Your task to perform on an android device: Open the web browser Image 0: 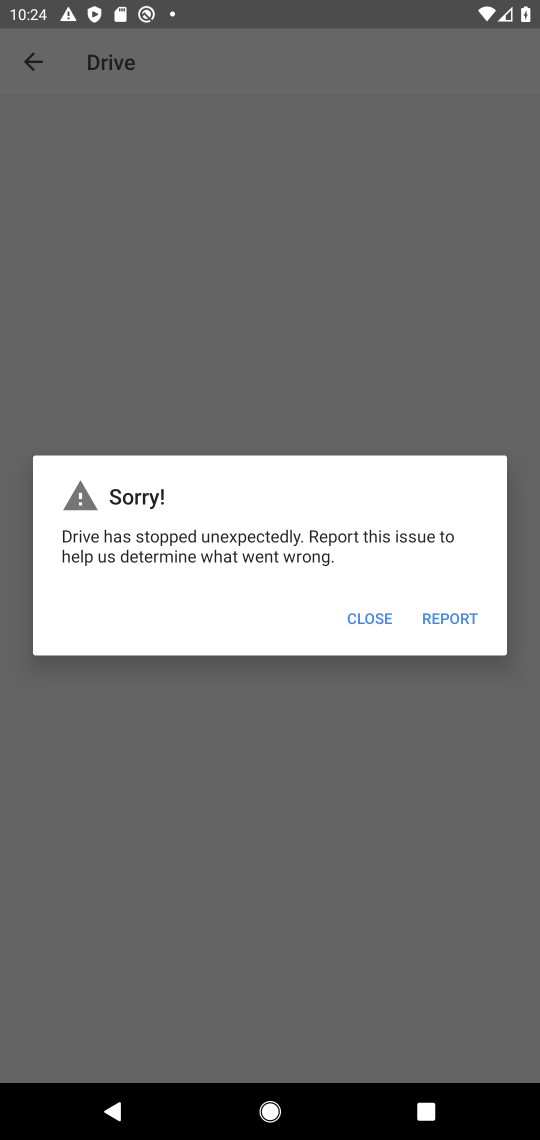
Step 0: press home button
Your task to perform on an android device: Open the web browser Image 1: 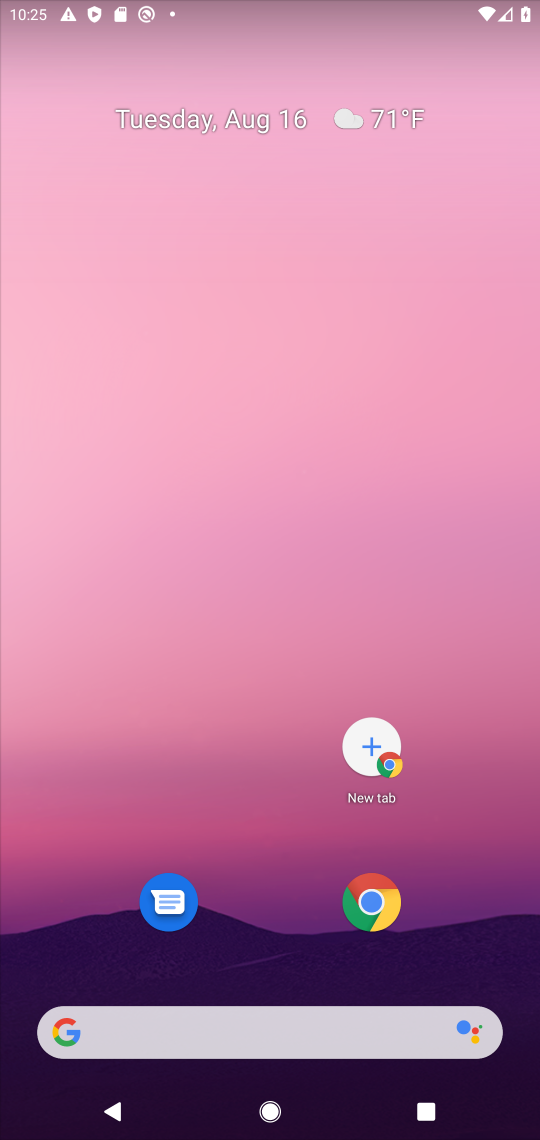
Step 1: click (358, 904)
Your task to perform on an android device: Open the web browser Image 2: 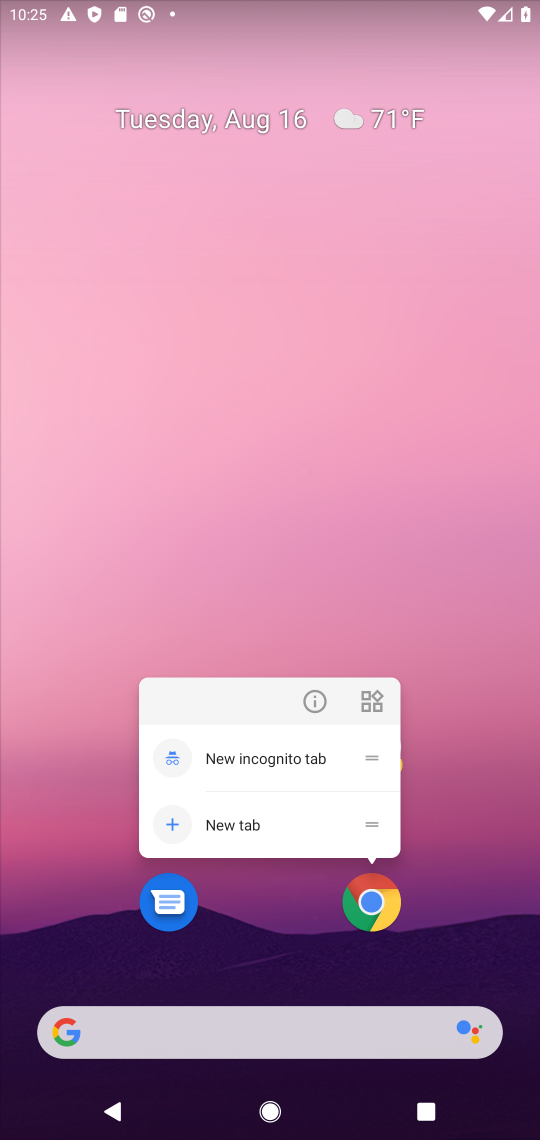
Step 2: click (352, 899)
Your task to perform on an android device: Open the web browser Image 3: 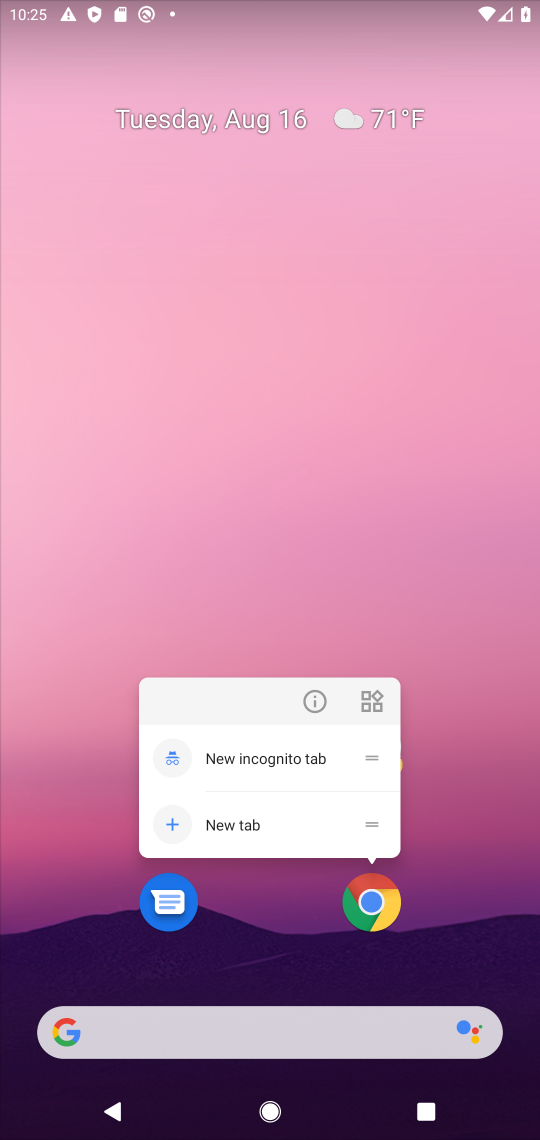
Step 3: click (370, 924)
Your task to perform on an android device: Open the web browser Image 4: 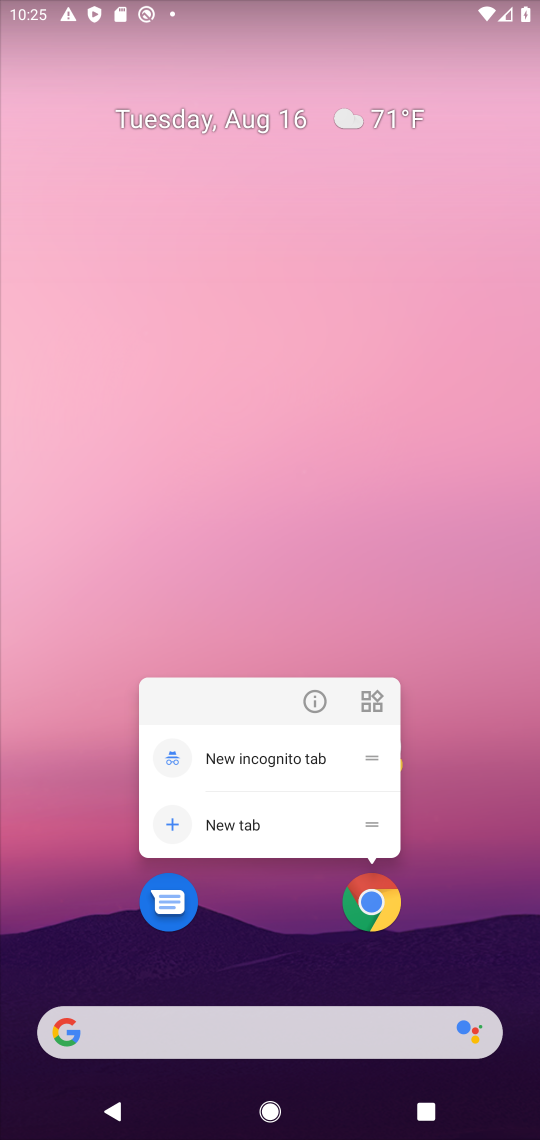
Step 4: click (376, 908)
Your task to perform on an android device: Open the web browser Image 5: 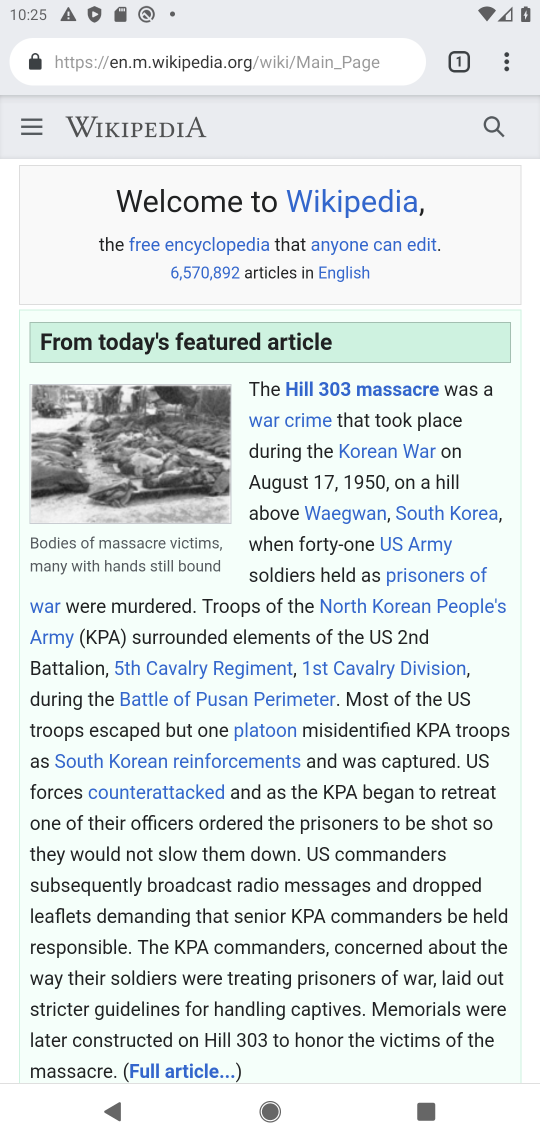
Step 5: task complete